Your task to perform on an android device: turn off location history Image 0: 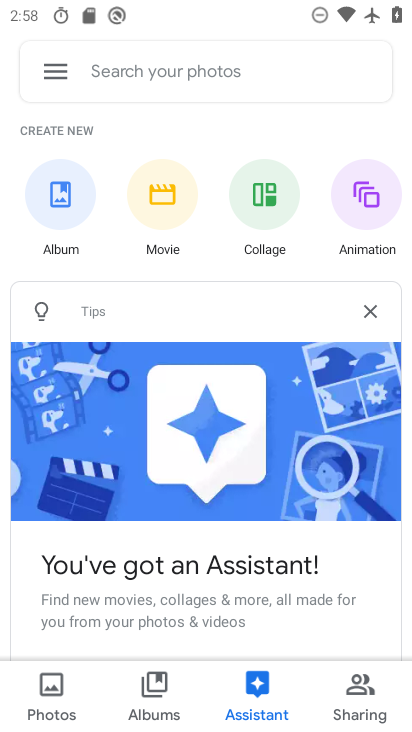
Step 0: press home button
Your task to perform on an android device: turn off location history Image 1: 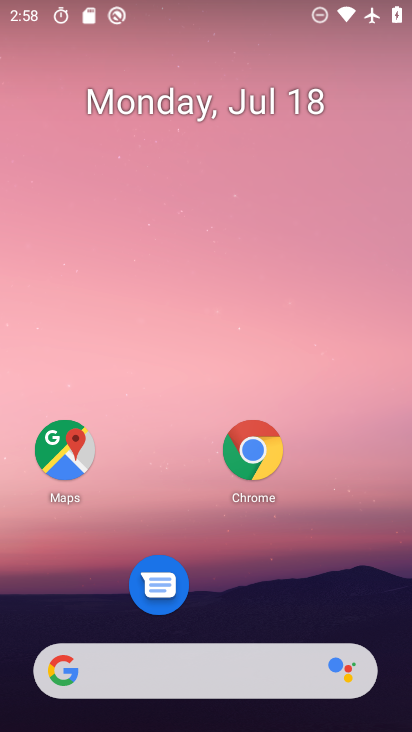
Step 1: drag from (182, 678) to (316, 86)
Your task to perform on an android device: turn off location history Image 2: 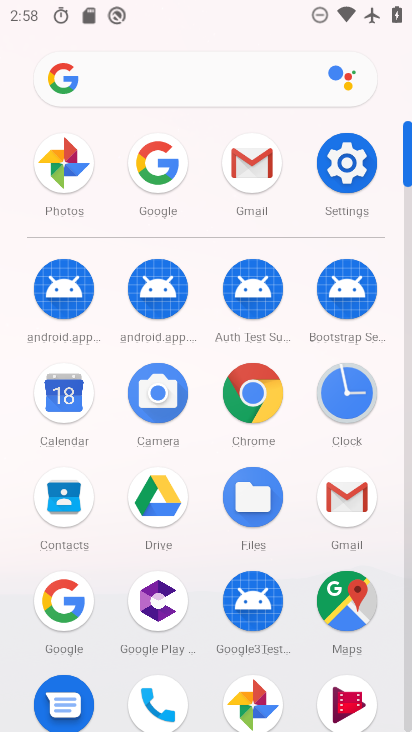
Step 2: click (357, 592)
Your task to perform on an android device: turn off location history Image 3: 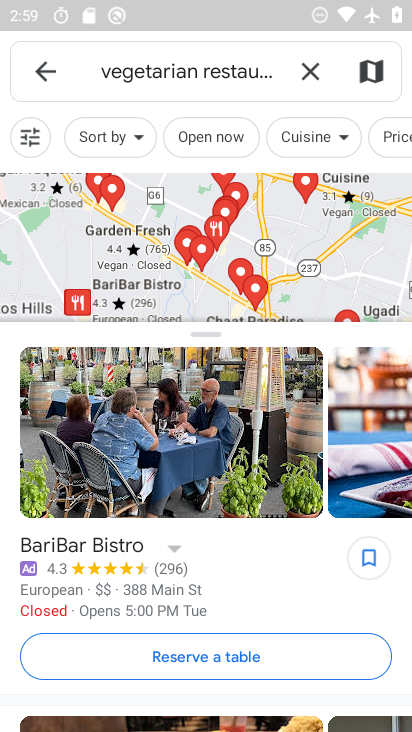
Step 3: click (42, 69)
Your task to perform on an android device: turn off location history Image 4: 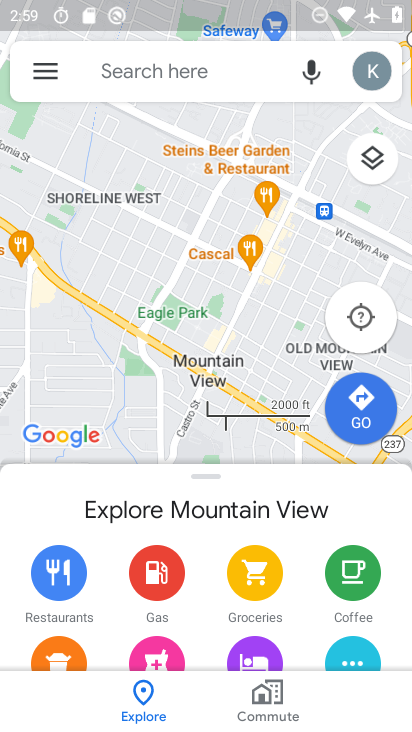
Step 4: click (50, 64)
Your task to perform on an android device: turn off location history Image 5: 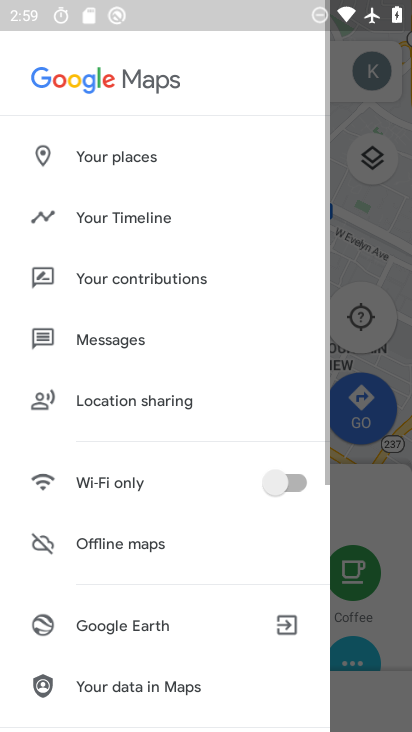
Step 5: click (153, 226)
Your task to perform on an android device: turn off location history Image 6: 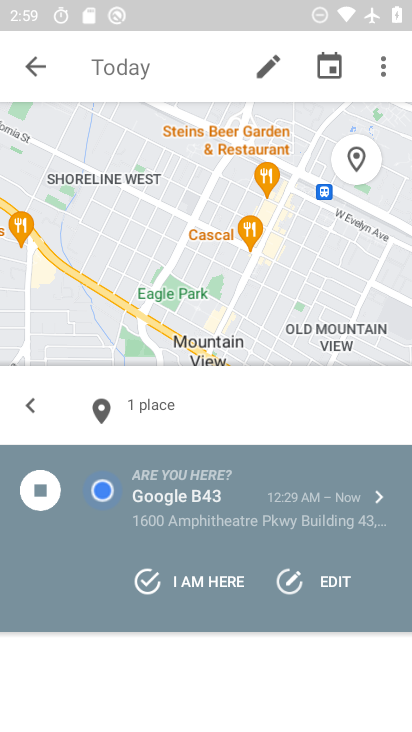
Step 6: click (381, 70)
Your task to perform on an android device: turn off location history Image 7: 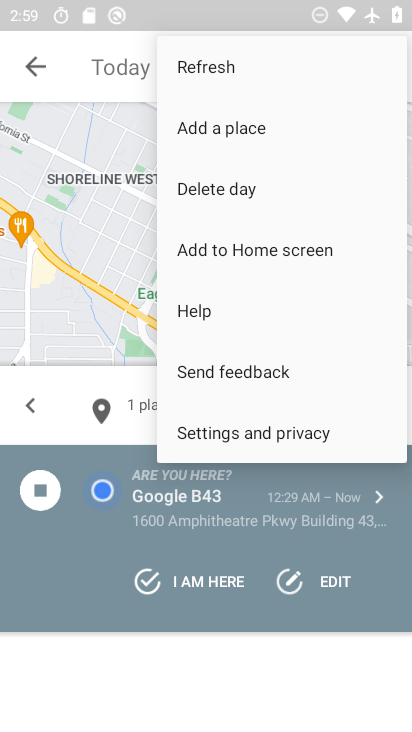
Step 7: click (225, 432)
Your task to perform on an android device: turn off location history Image 8: 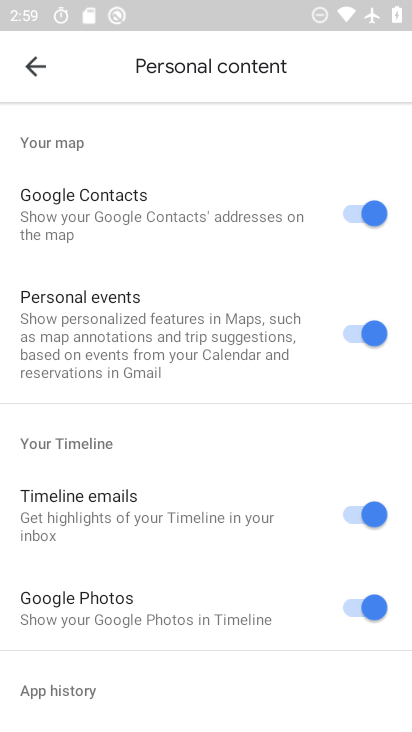
Step 8: drag from (160, 597) to (285, 195)
Your task to perform on an android device: turn off location history Image 9: 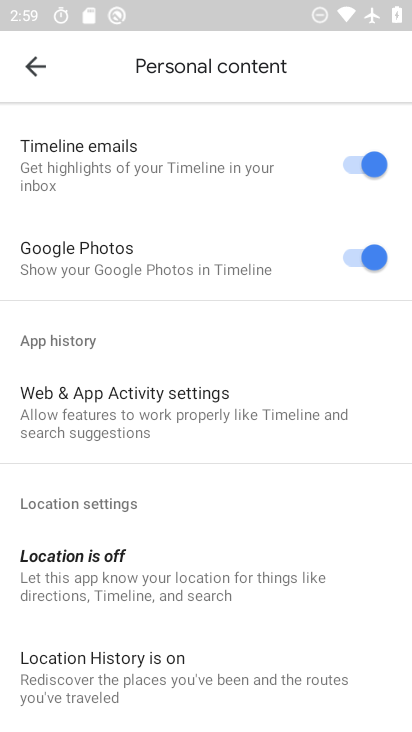
Step 9: click (145, 670)
Your task to perform on an android device: turn off location history Image 10: 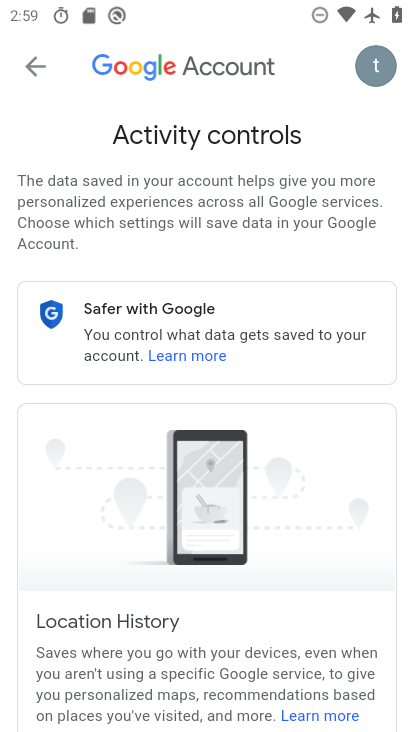
Step 10: task complete